Your task to perform on an android device: refresh tabs in the chrome app Image 0: 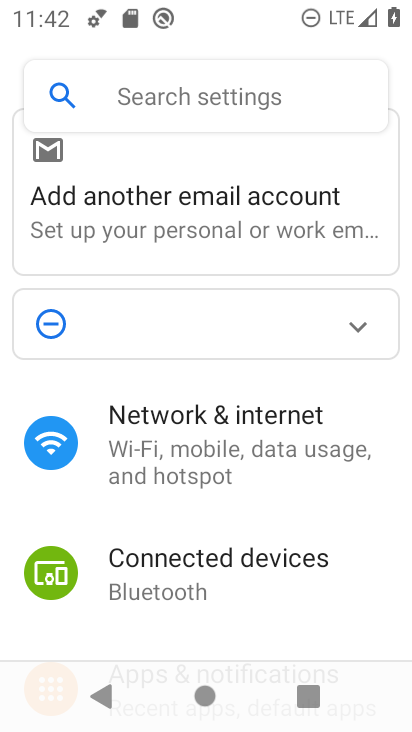
Step 0: press home button
Your task to perform on an android device: refresh tabs in the chrome app Image 1: 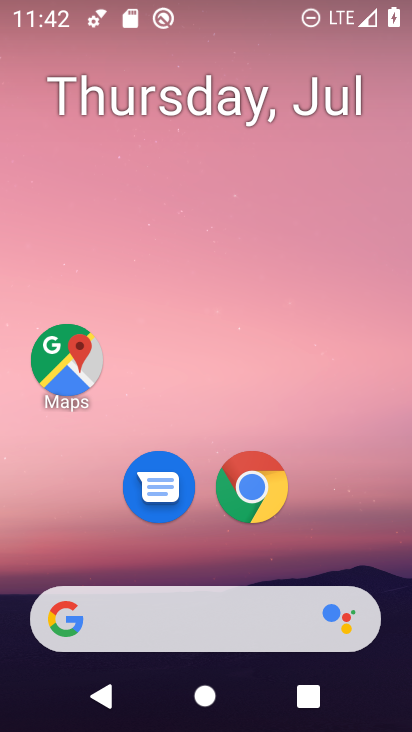
Step 1: drag from (224, 676) to (167, 170)
Your task to perform on an android device: refresh tabs in the chrome app Image 2: 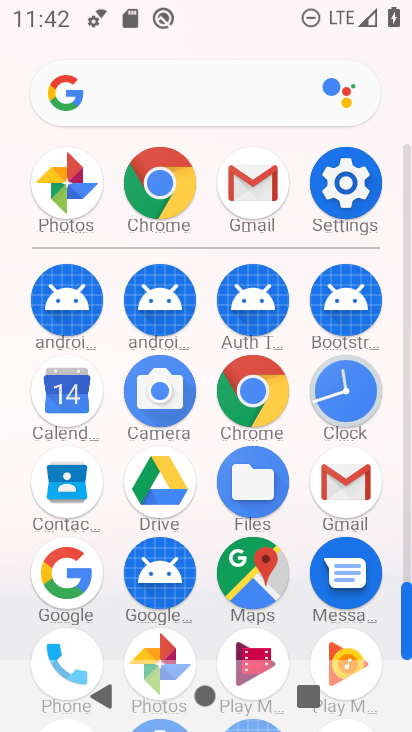
Step 2: click (167, 162)
Your task to perform on an android device: refresh tabs in the chrome app Image 3: 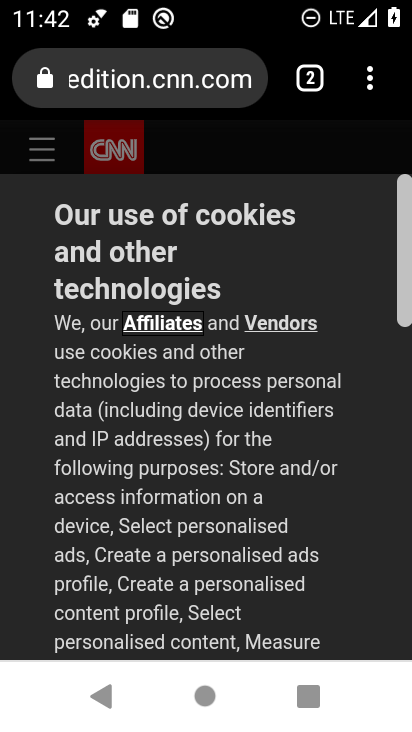
Step 3: click (363, 86)
Your task to perform on an android device: refresh tabs in the chrome app Image 4: 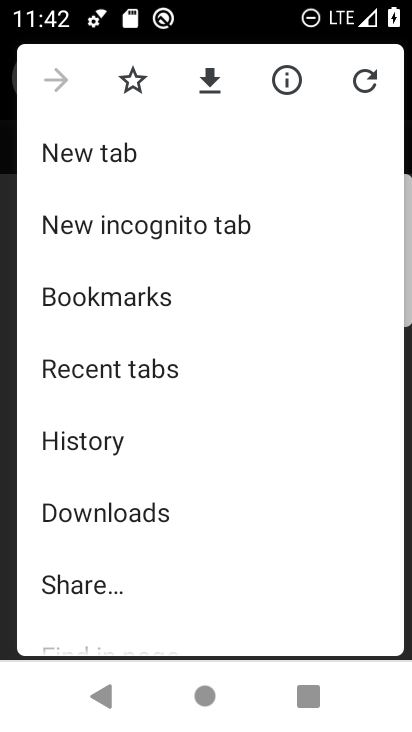
Step 4: click (376, 81)
Your task to perform on an android device: refresh tabs in the chrome app Image 5: 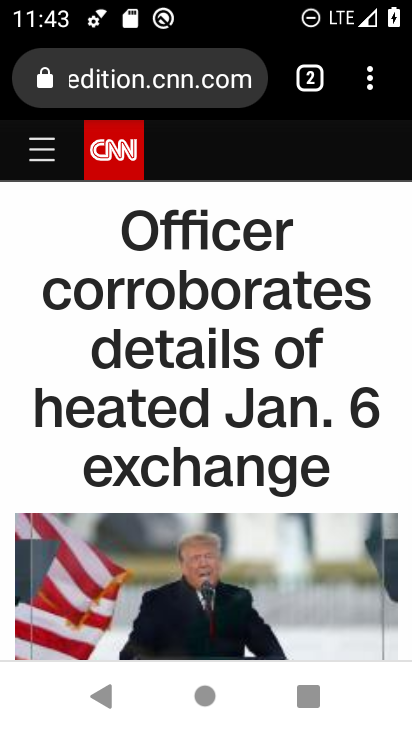
Step 5: task complete